Your task to perform on an android device: When is my next meeting? Image 0: 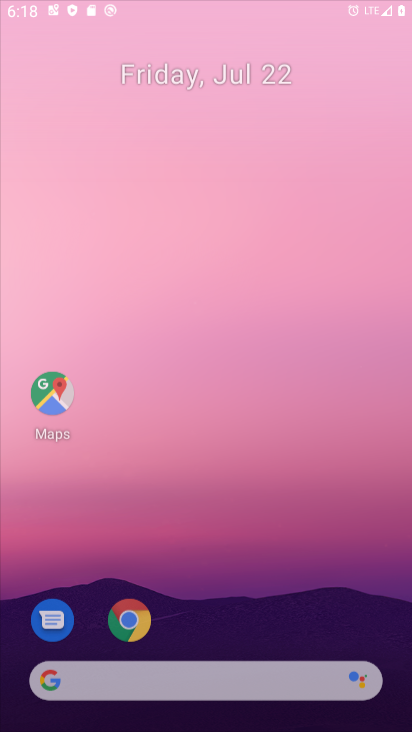
Step 0: press home button
Your task to perform on an android device: When is my next meeting? Image 1: 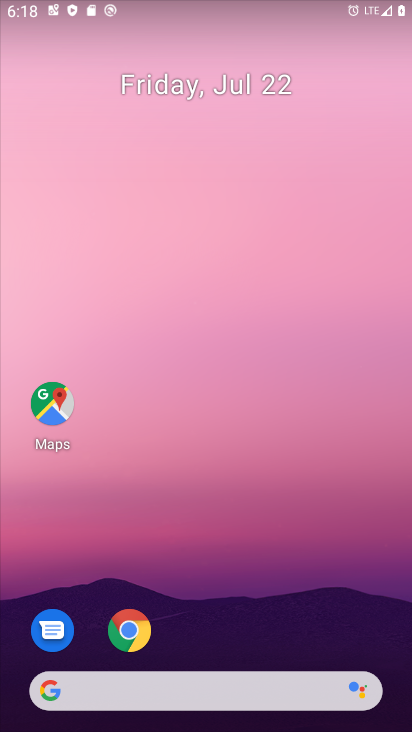
Step 1: drag from (250, 662) to (275, 60)
Your task to perform on an android device: When is my next meeting? Image 2: 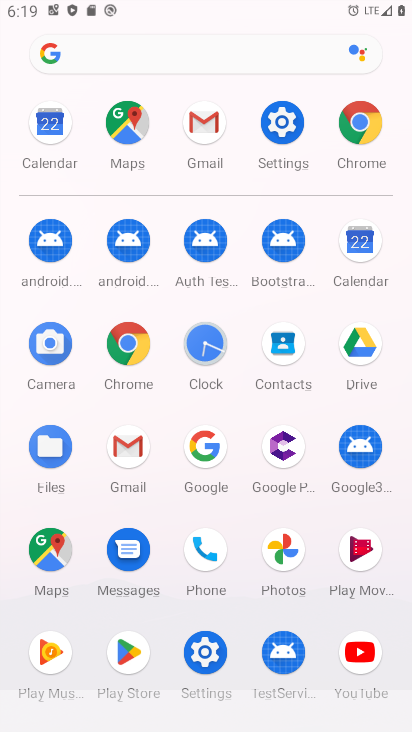
Step 2: click (367, 244)
Your task to perform on an android device: When is my next meeting? Image 3: 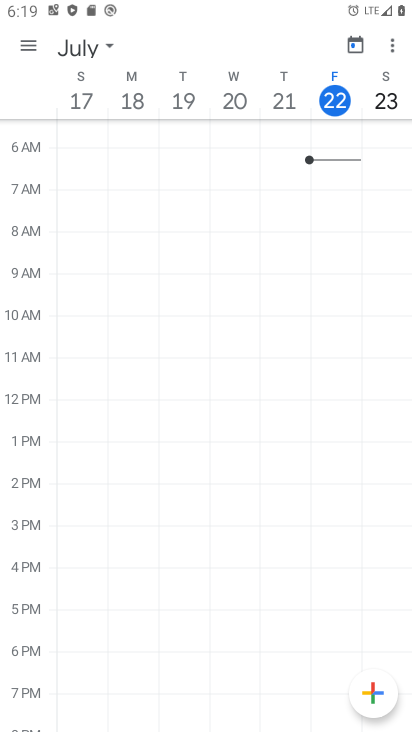
Step 3: click (106, 38)
Your task to perform on an android device: When is my next meeting? Image 4: 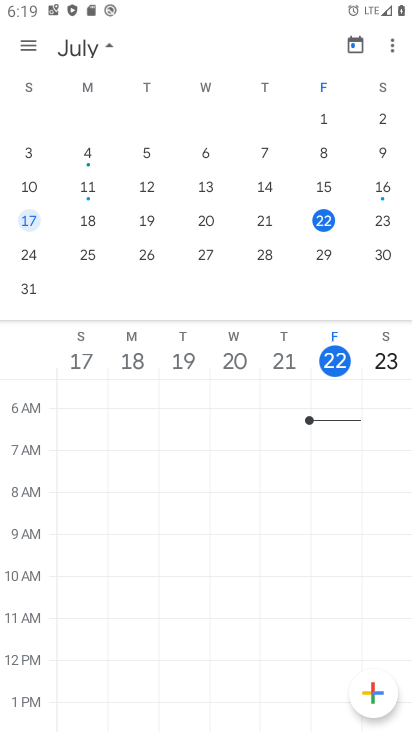
Step 4: click (379, 218)
Your task to perform on an android device: When is my next meeting? Image 5: 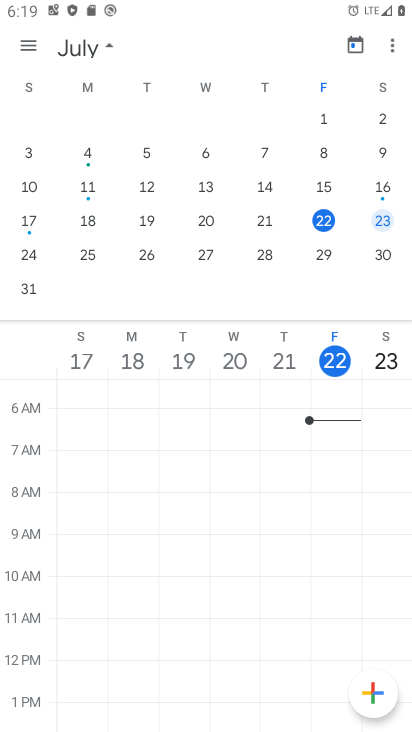
Step 5: task complete